Your task to perform on an android device: turn on notifications settings in the gmail app Image 0: 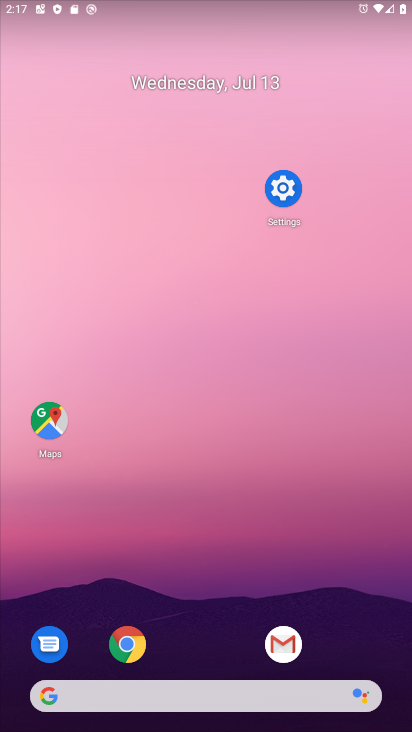
Step 0: click (283, 637)
Your task to perform on an android device: turn on notifications settings in the gmail app Image 1: 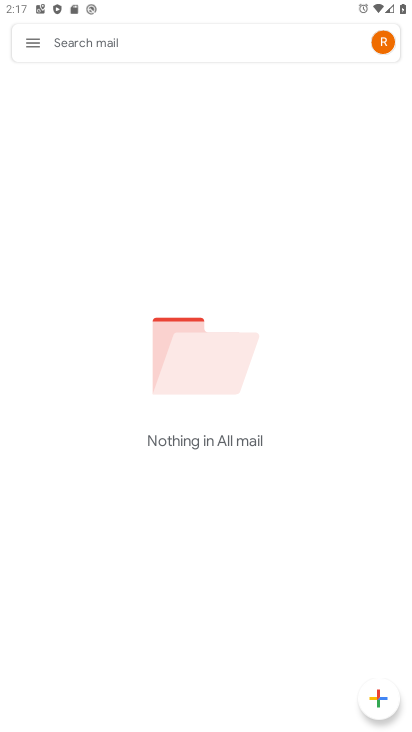
Step 1: click (26, 44)
Your task to perform on an android device: turn on notifications settings in the gmail app Image 2: 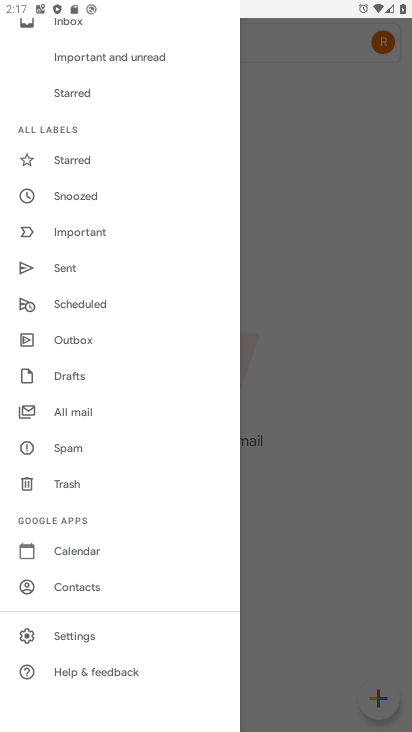
Step 2: click (79, 635)
Your task to perform on an android device: turn on notifications settings in the gmail app Image 3: 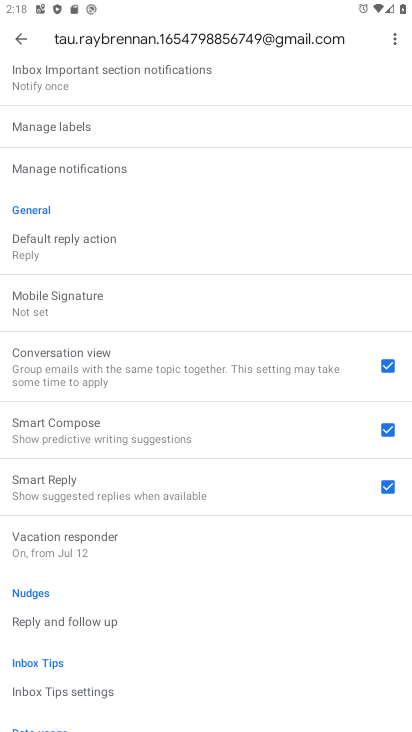
Step 3: click (66, 174)
Your task to perform on an android device: turn on notifications settings in the gmail app Image 4: 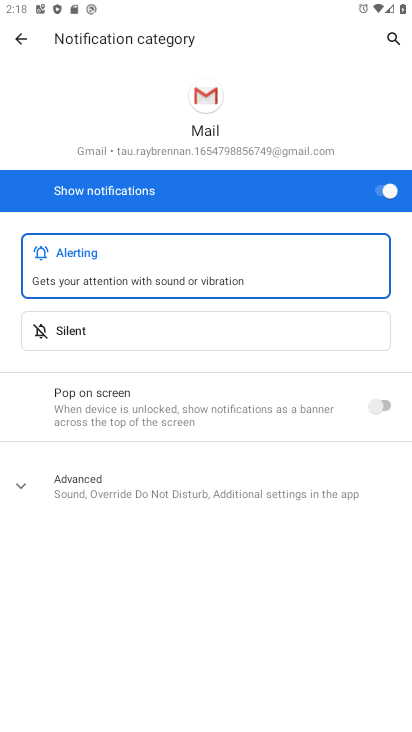
Step 4: click (371, 195)
Your task to perform on an android device: turn on notifications settings in the gmail app Image 5: 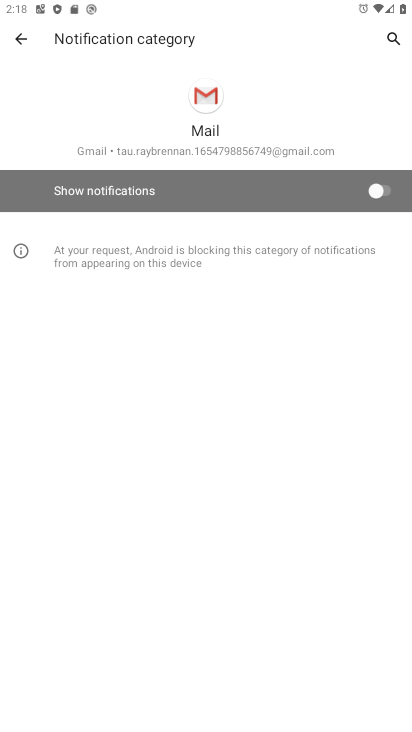
Step 5: click (374, 193)
Your task to perform on an android device: turn on notifications settings in the gmail app Image 6: 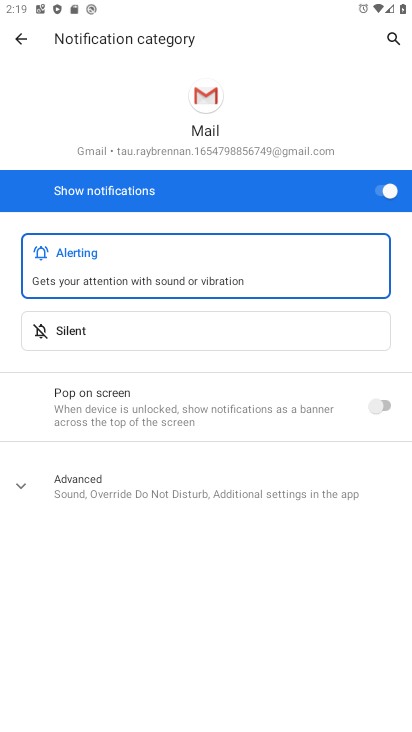
Step 6: task complete